Your task to perform on an android device: turn off wifi Image 0: 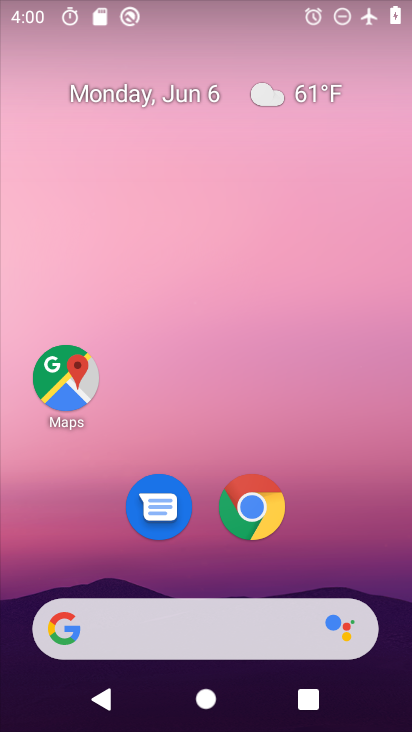
Step 0: drag from (196, 555) to (217, 171)
Your task to perform on an android device: turn off wifi Image 1: 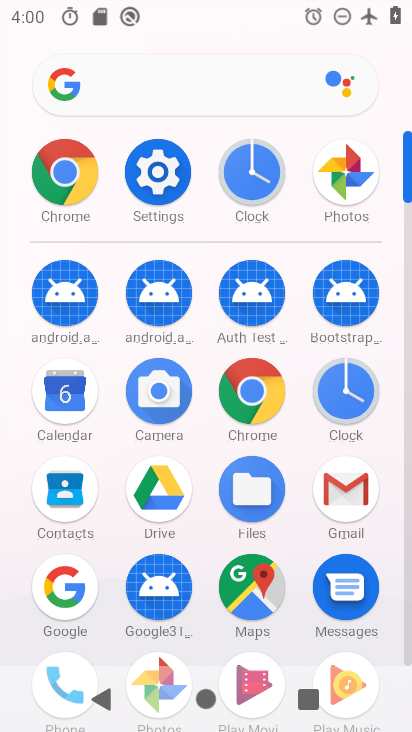
Step 1: click (155, 194)
Your task to perform on an android device: turn off wifi Image 2: 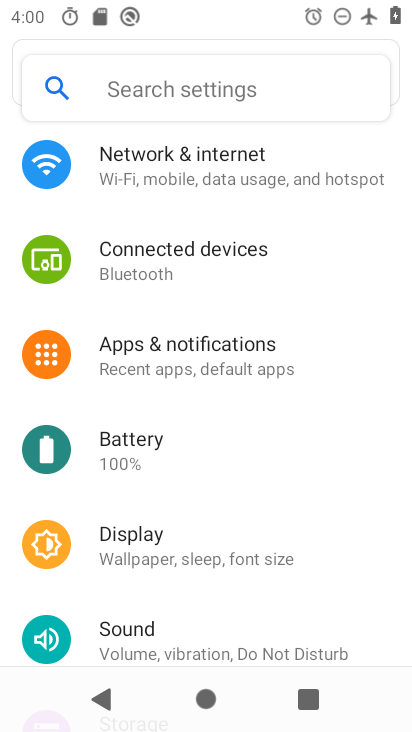
Step 2: click (154, 184)
Your task to perform on an android device: turn off wifi Image 3: 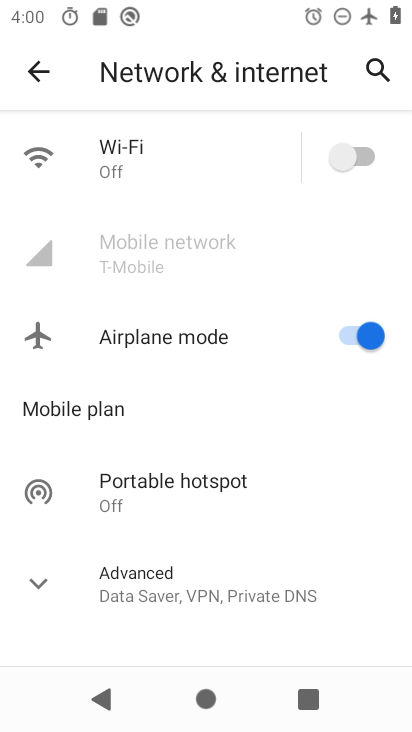
Step 3: click (175, 152)
Your task to perform on an android device: turn off wifi Image 4: 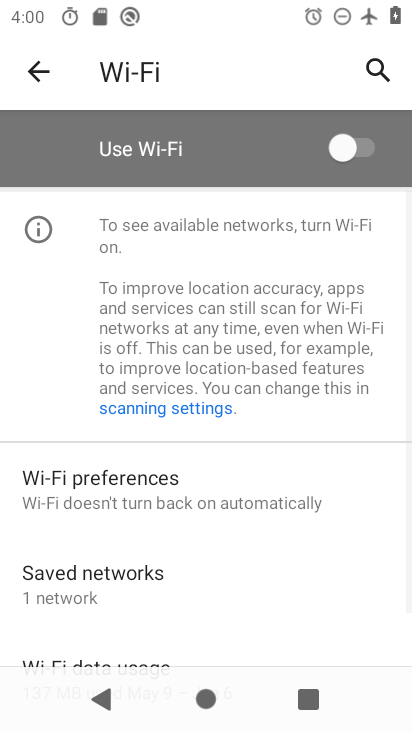
Step 4: task complete